Your task to perform on an android device: Open Google Image 0: 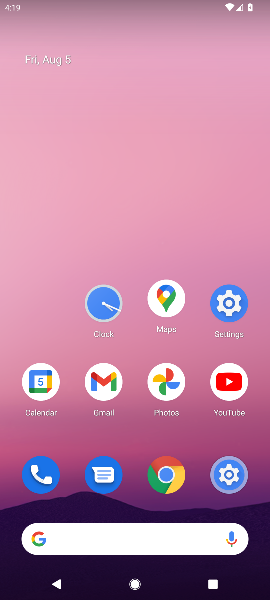
Step 0: drag from (249, 497) to (159, 143)
Your task to perform on an android device: Open Google Image 1: 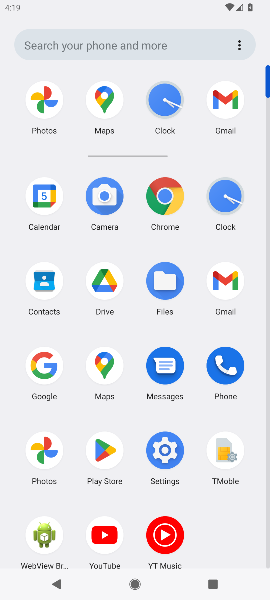
Step 1: click (41, 368)
Your task to perform on an android device: Open Google Image 2: 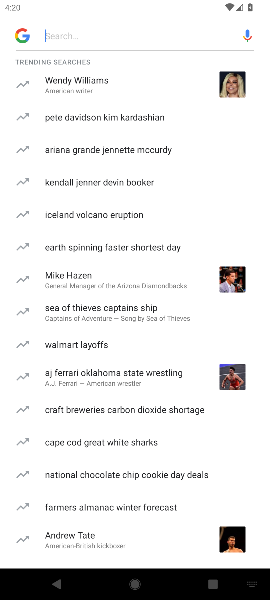
Step 2: press back button
Your task to perform on an android device: Open Google Image 3: 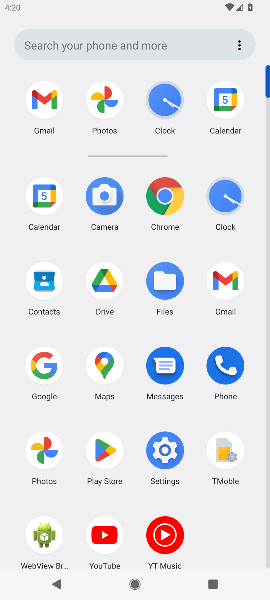
Step 3: click (32, 374)
Your task to perform on an android device: Open Google Image 4: 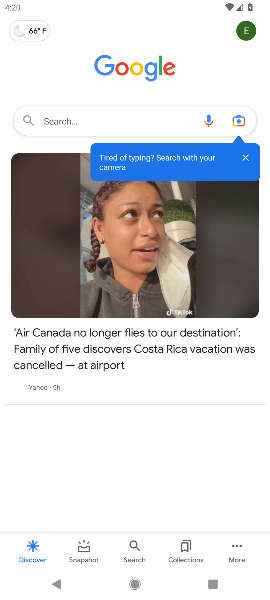
Step 4: task complete